Your task to perform on an android device: Go to eBay Image 0: 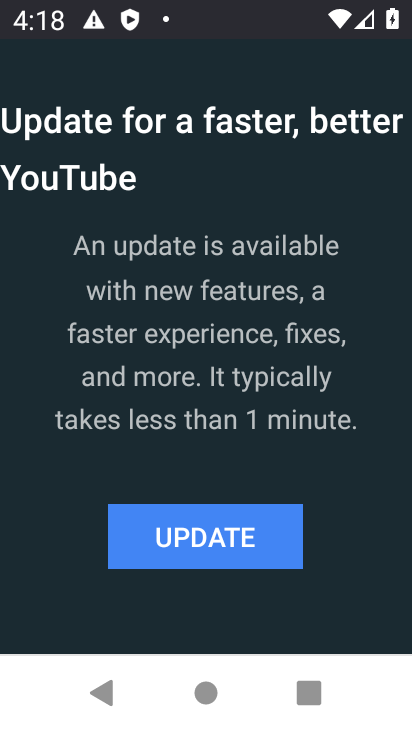
Step 0: press home button
Your task to perform on an android device: Go to eBay Image 1: 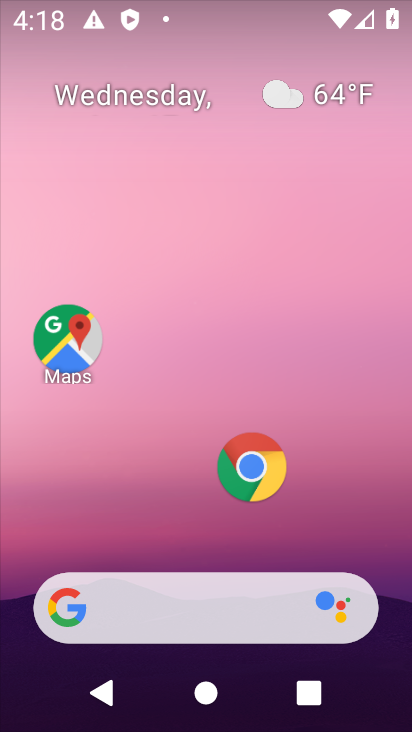
Step 1: task complete